Your task to perform on an android device: Go to wifi settings Image 0: 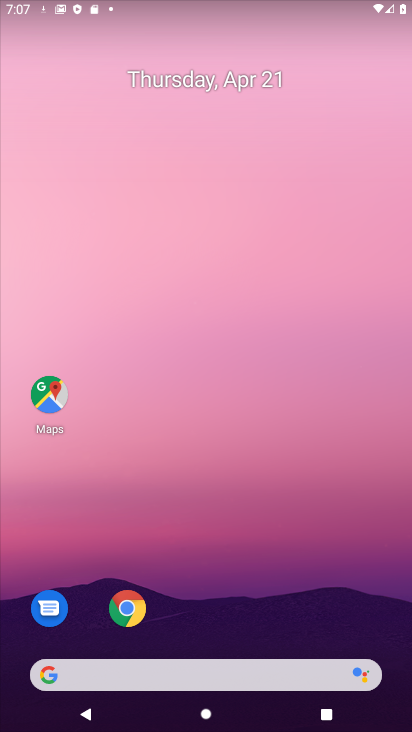
Step 0: drag from (220, 564) to (210, 192)
Your task to perform on an android device: Go to wifi settings Image 1: 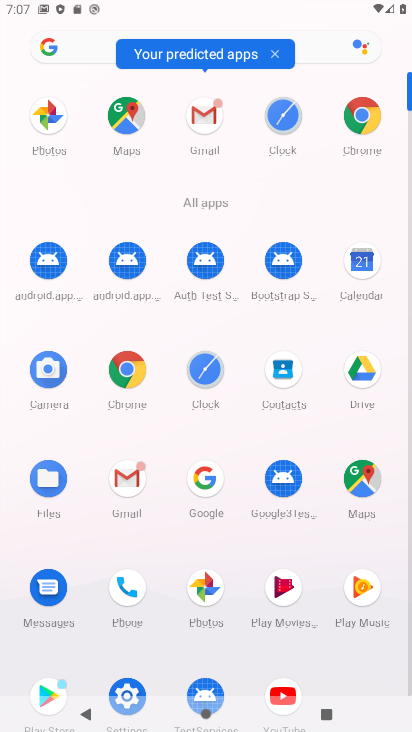
Step 1: click (131, 676)
Your task to perform on an android device: Go to wifi settings Image 2: 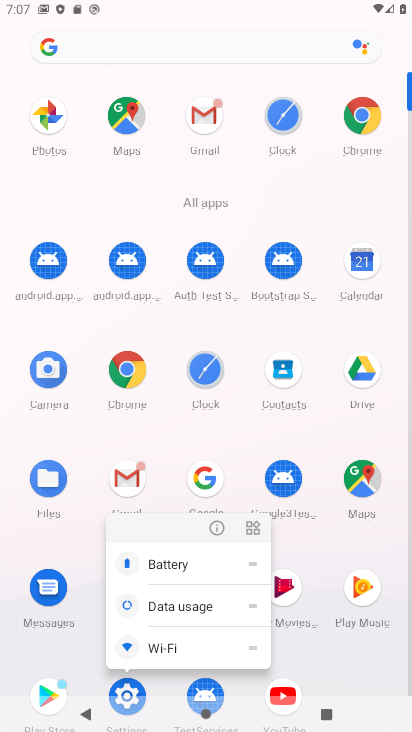
Step 2: click (123, 679)
Your task to perform on an android device: Go to wifi settings Image 3: 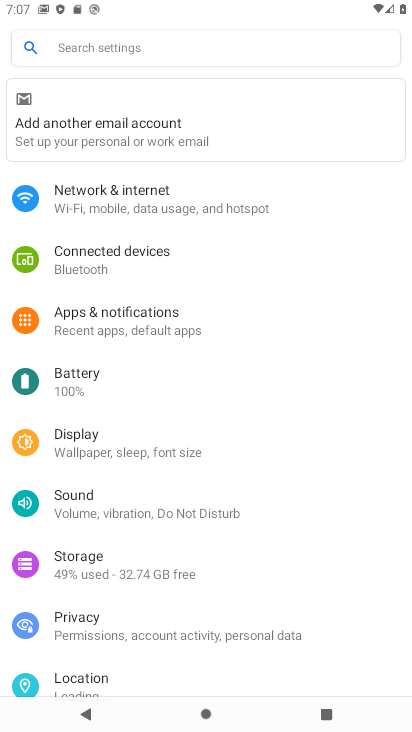
Step 3: click (116, 213)
Your task to perform on an android device: Go to wifi settings Image 4: 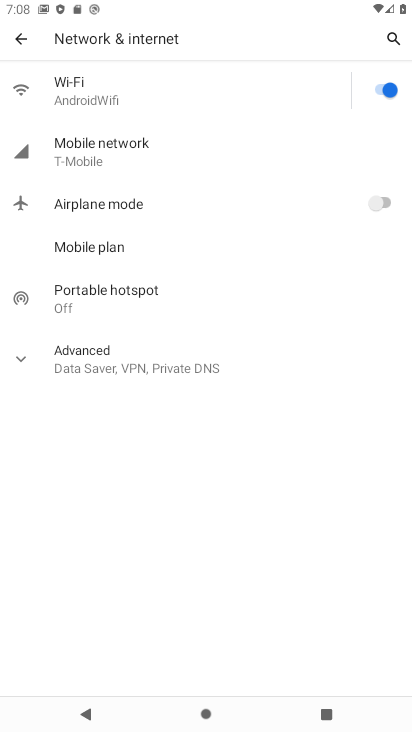
Step 4: click (175, 92)
Your task to perform on an android device: Go to wifi settings Image 5: 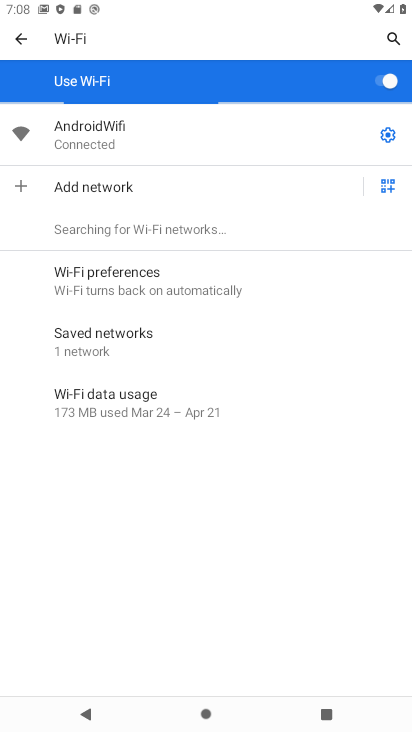
Step 5: task complete